Your task to perform on an android device: Open network settings Image 0: 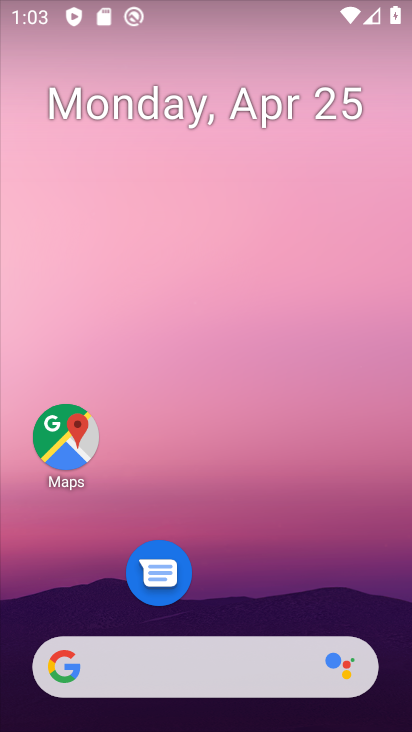
Step 0: drag from (212, 573) to (243, 178)
Your task to perform on an android device: Open network settings Image 1: 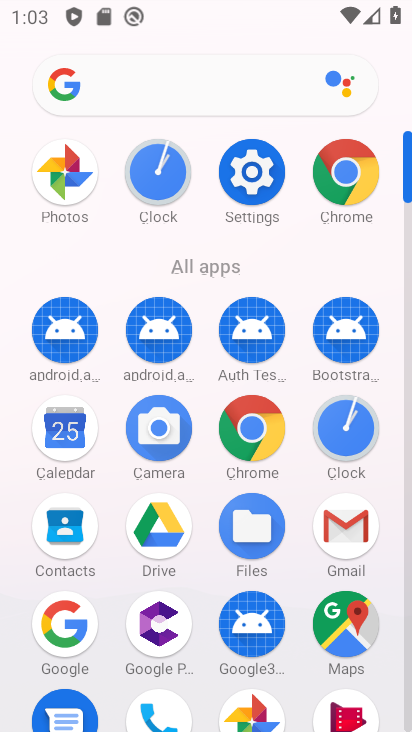
Step 1: click (239, 179)
Your task to perform on an android device: Open network settings Image 2: 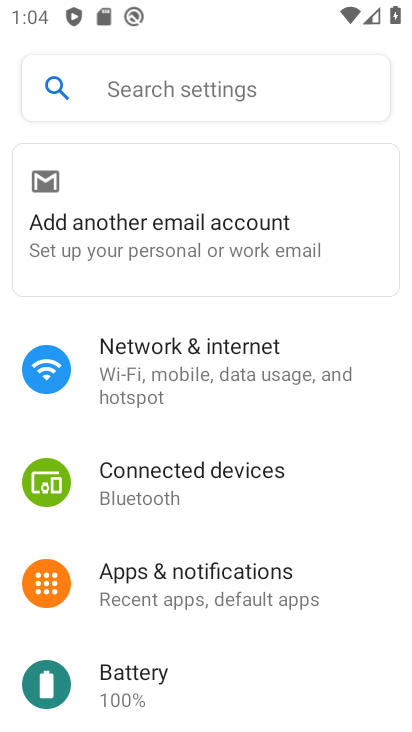
Step 2: click (180, 372)
Your task to perform on an android device: Open network settings Image 3: 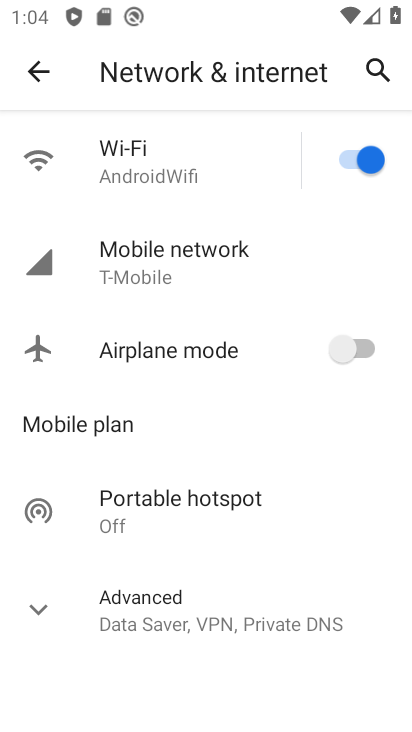
Step 3: click (235, 252)
Your task to perform on an android device: Open network settings Image 4: 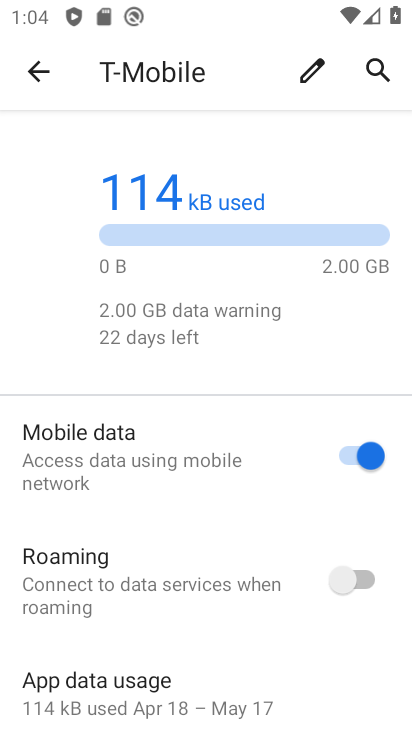
Step 4: task complete